Your task to perform on an android device: manage bookmarks in the chrome app Image 0: 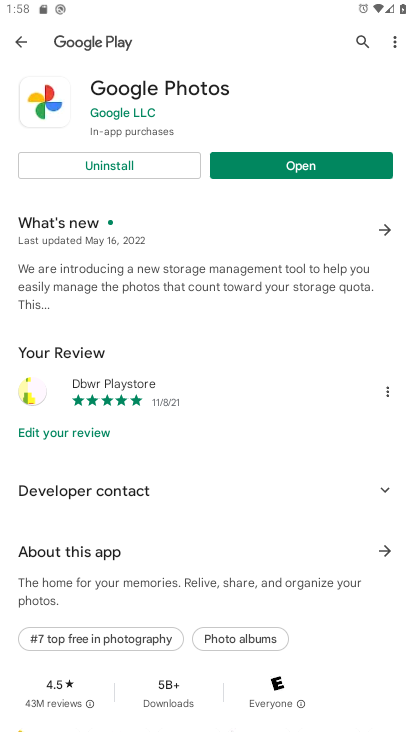
Step 0: press home button
Your task to perform on an android device: manage bookmarks in the chrome app Image 1: 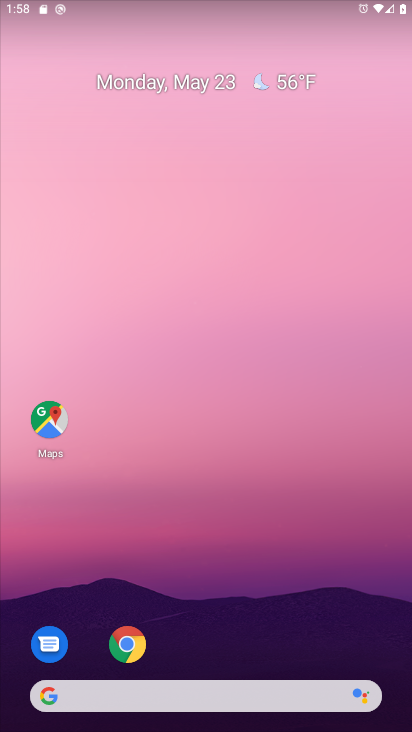
Step 1: click (125, 651)
Your task to perform on an android device: manage bookmarks in the chrome app Image 2: 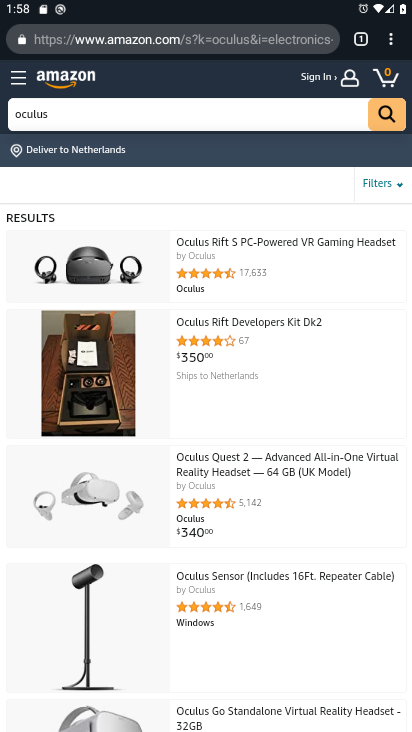
Step 2: click (393, 42)
Your task to perform on an android device: manage bookmarks in the chrome app Image 3: 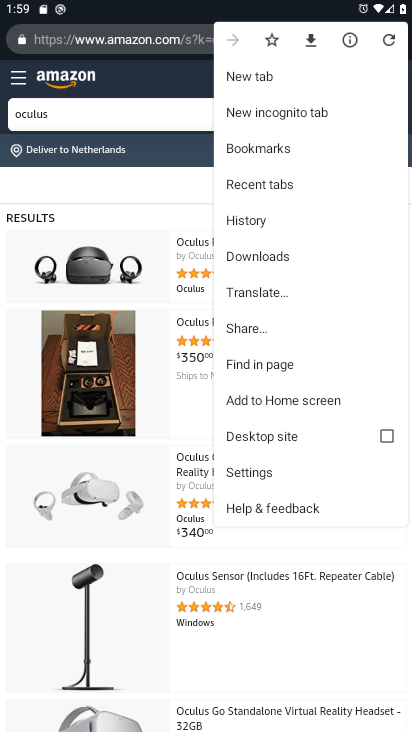
Step 3: click (286, 151)
Your task to perform on an android device: manage bookmarks in the chrome app Image 4: 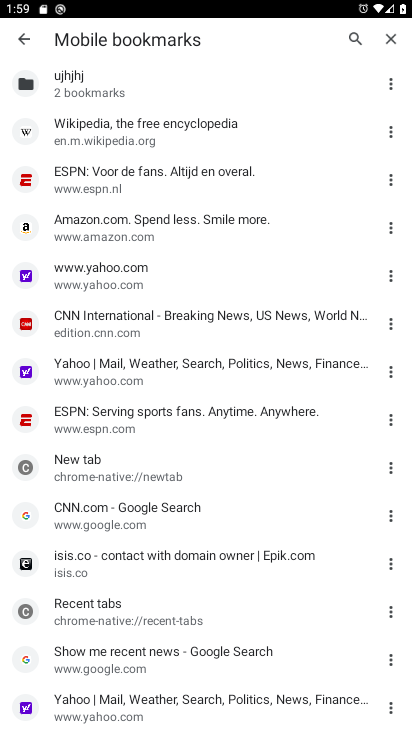
Step 4: click (395, 129)
Your task to perform on an android device: manage bookmarks in the chrome app Image 5: 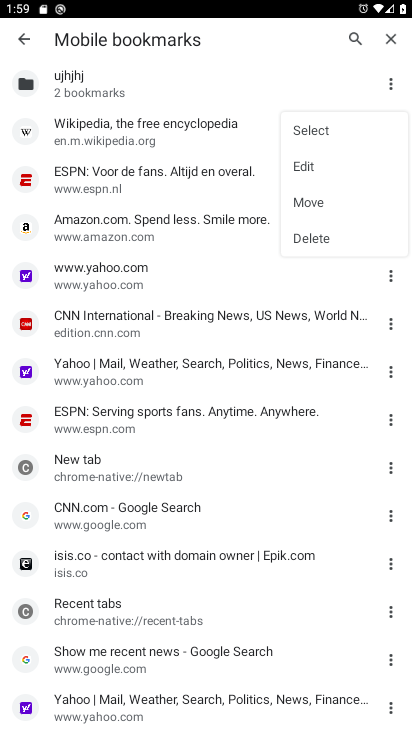
Step 5: click (302, 235)
Your task to perform on an android device: manage bookmarks in the chrome app Image 6: 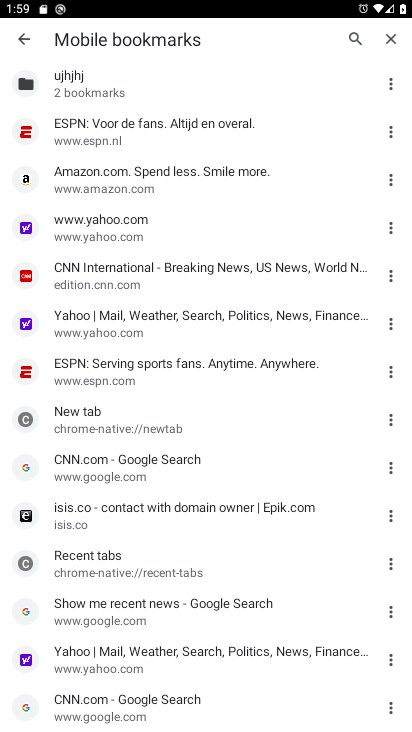
Step 6: task complete